Your task to perform on an android device: turn vacation reply on in the gmail app Image 0: 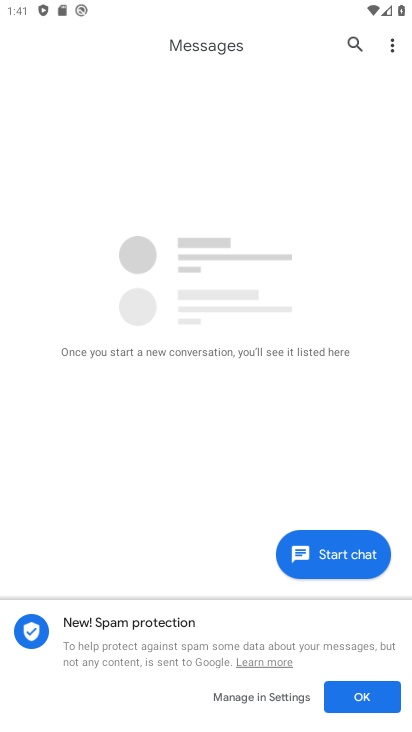
Step 0: press home button
Your task to perform on an android device: turn vacation reply on in the gmail app Image 1: 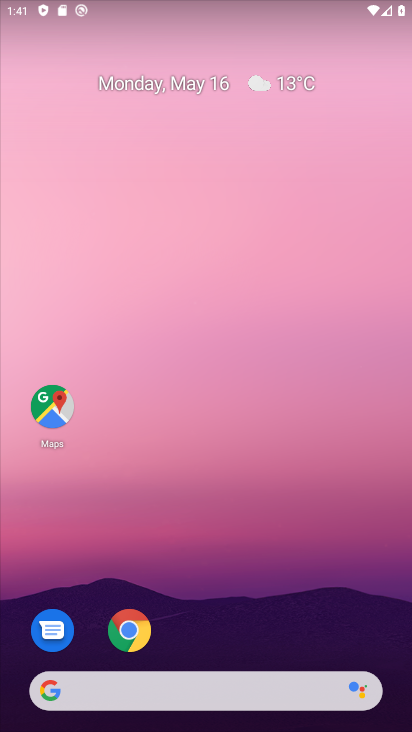
Step 1: drag from (211, 493) to (176, 27)
Your task to perform on an android device: turn vacation reply on in the gmail app Image 2: 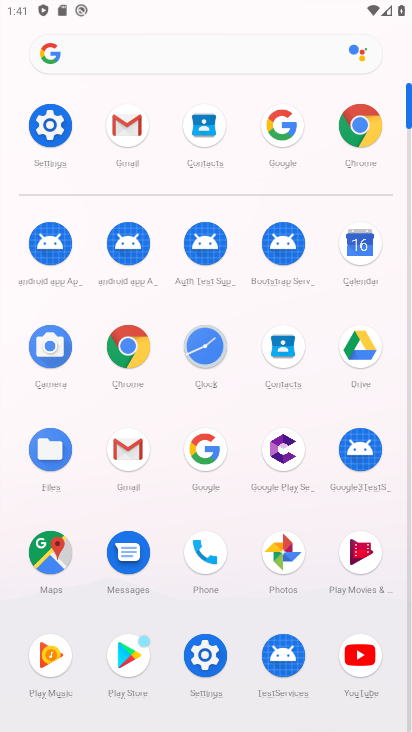
Step 2: click (140, 458)
Your task to perform on an android device: turn vacation reply on in the gmail app Image 3: 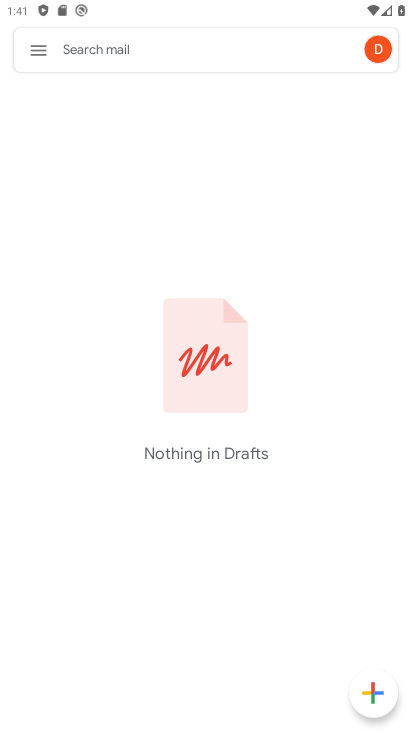
Step 3: click (24, 43)
Your task to perform on an android device: turn vacation reply on in the gmail app Image 4: 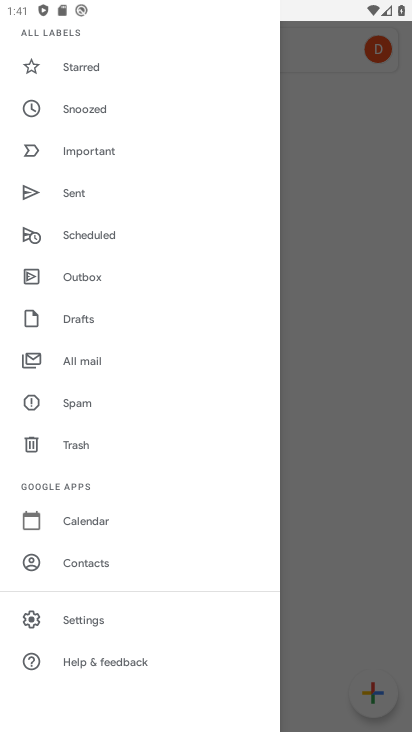
Step 4: click (129, 617)
Your task to perform on an android device: turn vacation reply on in the gmail app Image 5: 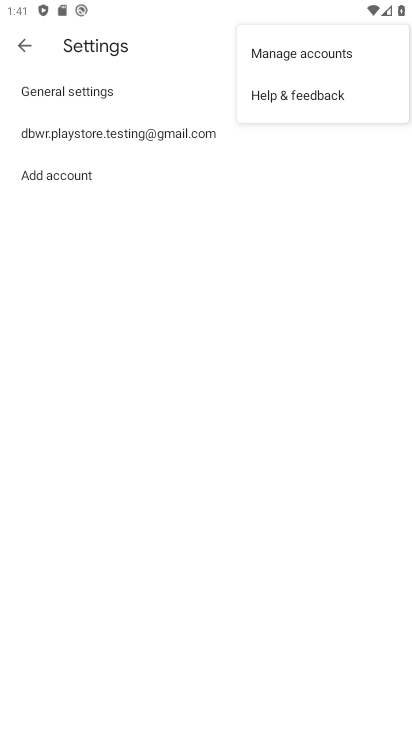
Step 5: task complete